Your task to perform on an android device: turn off javascript in the chrome app Image 0: 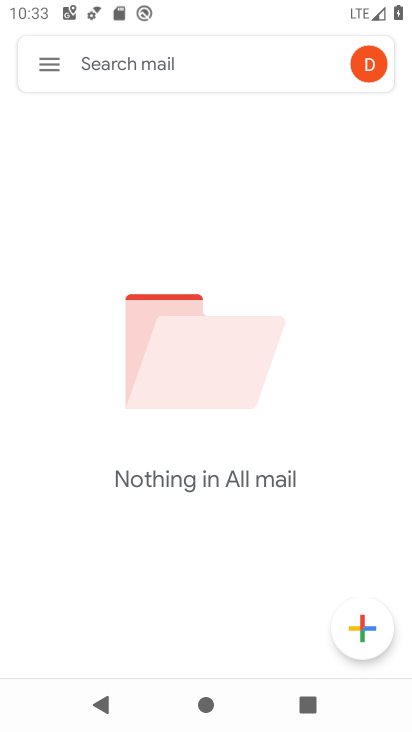
Step 0: press home button
Your task to perform on an android device: turn off javascript in the chrome app Image 1: 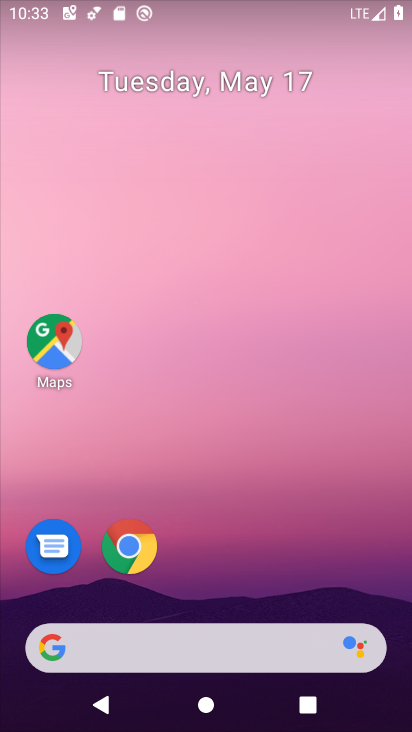
Step 1: click (136, 548)
Your task to perform on an android device: turn off javascript in the chrome app Image 2: 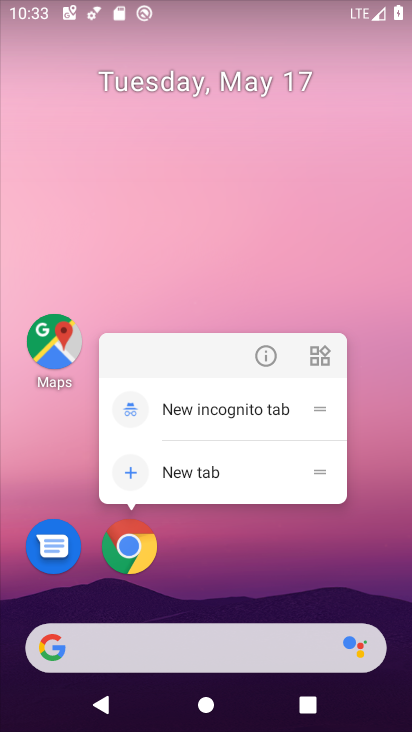
Step 2: click (136, 548)
Your task to perform on an android device: turn off javascript in the chrome app Image 3: 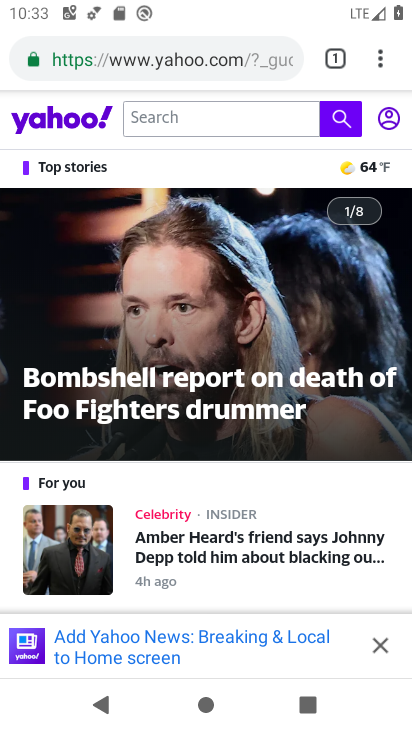
Step 3: click (389, 68)
Your task to perform on an android device: turn off javascript in the chrome app Image 4: 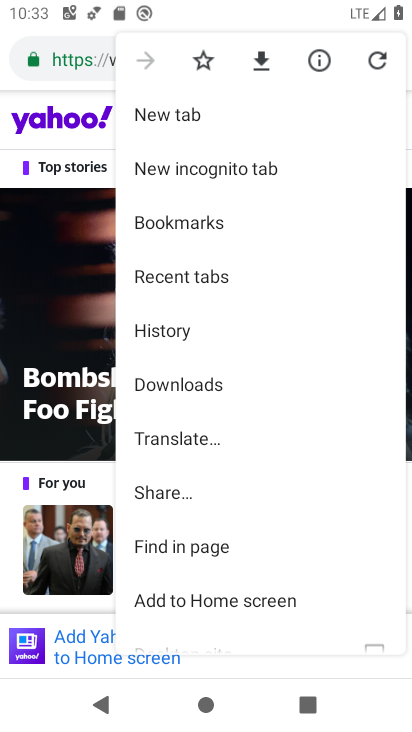
Step 4: drag from (187, 516) to (227, 166)
Your task to perform on an android device: turn off javascript in the chrome app Image 5: 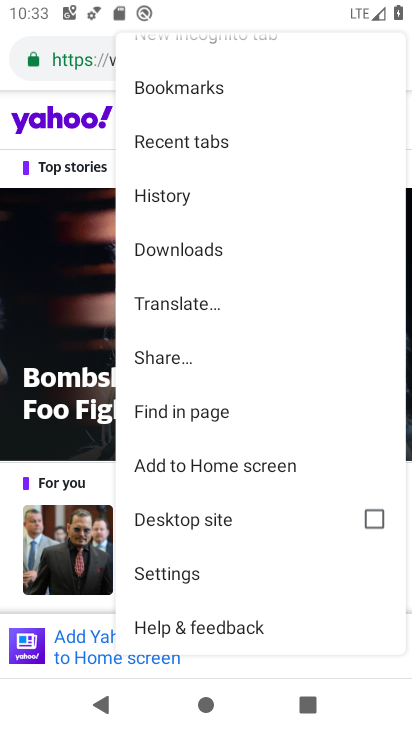
Step 5: click (177, 578)
Your task to perform on an android device: turn off javascript in the chrome app Image 6: 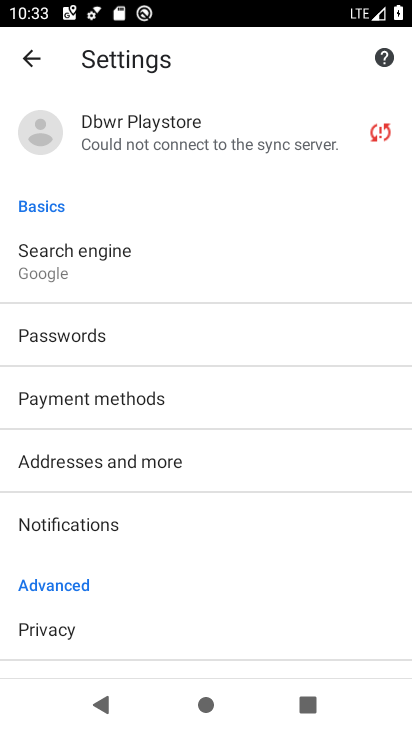
Step 6: drag from (143, 526) to (176, 295)
Your task to perform on an android device: turn off javascript in the chrome app Image 7: 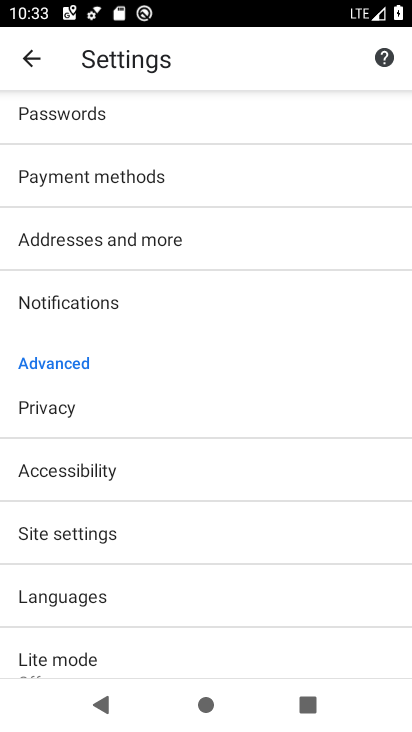
Step 7: click (90, 540)
Your task to perform on an android device: turn off javascript in the chrome app Image 8: 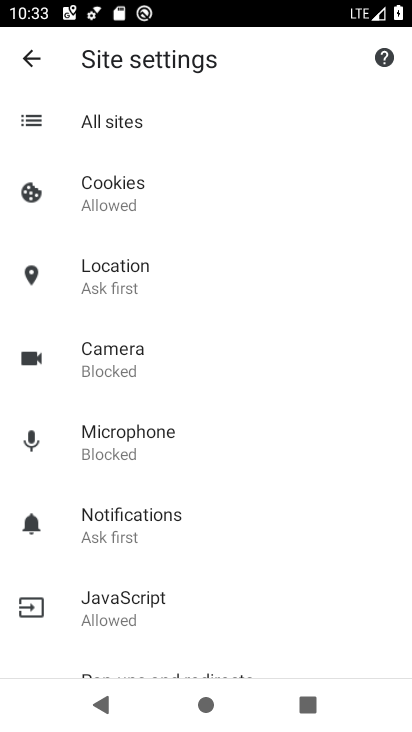
Step 8: click (134, 609)
Your task to perform on an android device: turn off javascript in the chrome app Image 9: 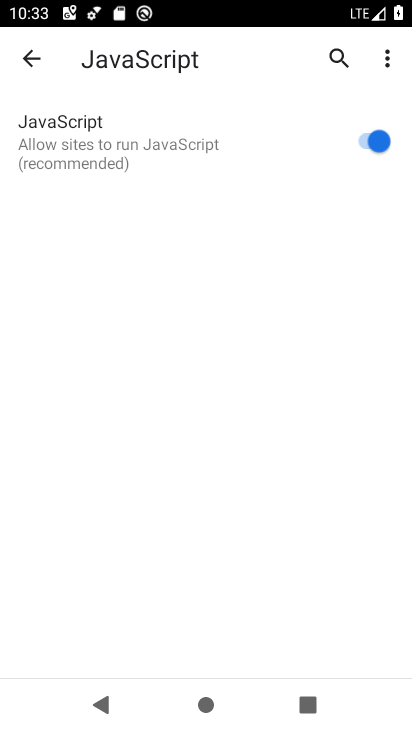
Step 9: click (343, 147)
Your task to perform on an android device: turn off javascript in the chrome app Image 10: 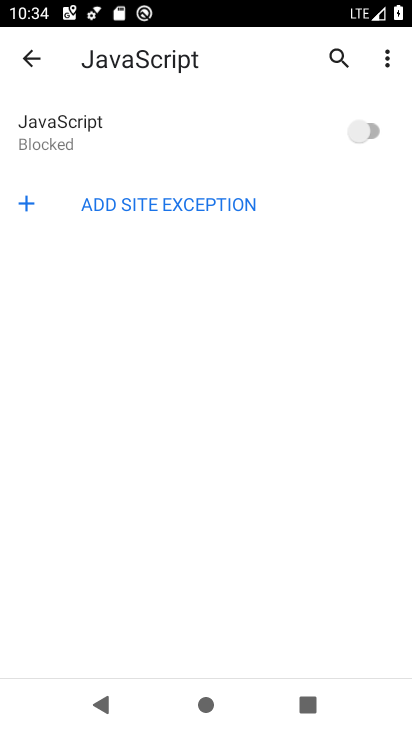
Step 10: task complete